Your task to perform on an android device: open wifi settings Image 0: 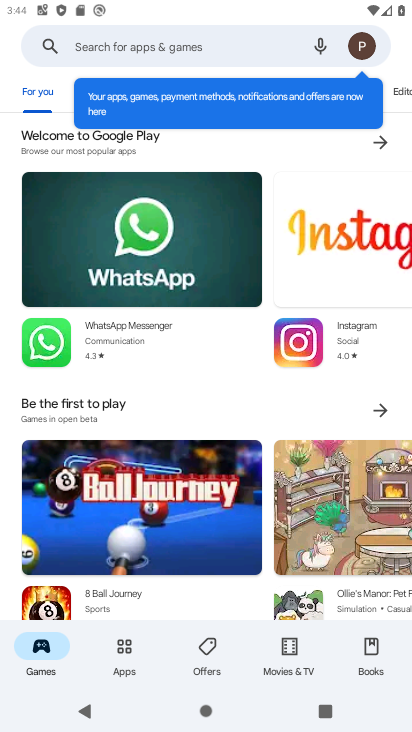
Step 0: press home button
Your task to perform on an android device: open wifi settings Image 1: 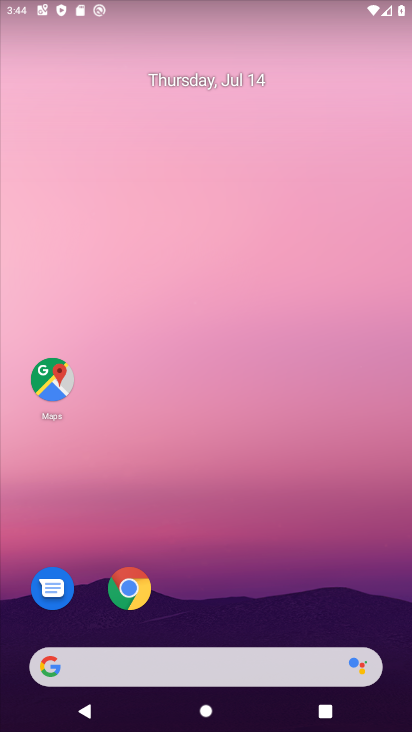
Step 1: drag from (241, 577) to (236, 64)
Your task to perform on an android device: open wifi settings Image 2: 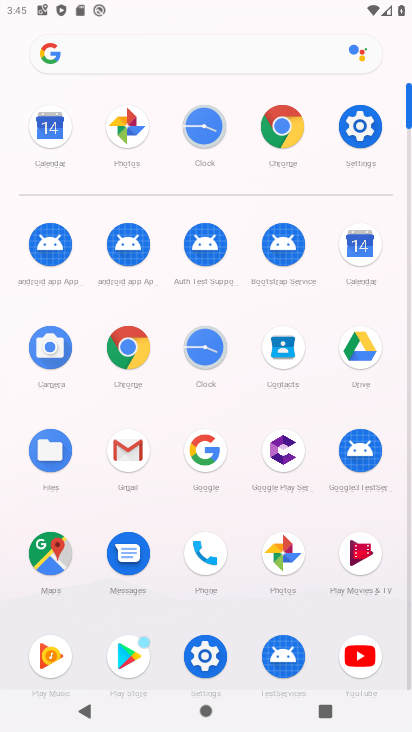
Step 2: click (363, 131)
Your task to perform on an android device: open wifi settings Image 3: 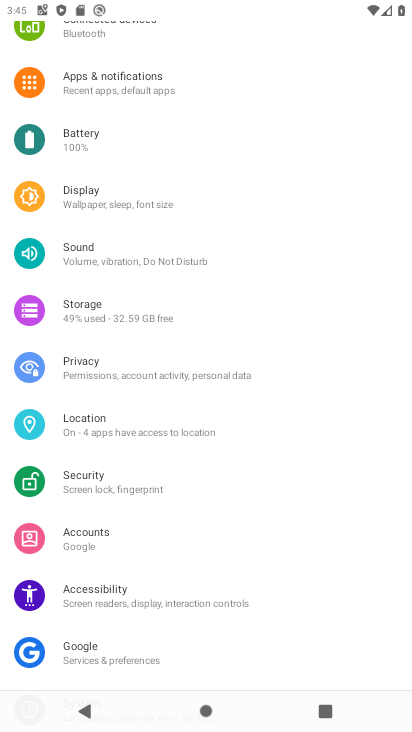
Step 3: drag from (192, 59) to (270, 573)
Your task to perform on an android device: open wifi settings Image 4: 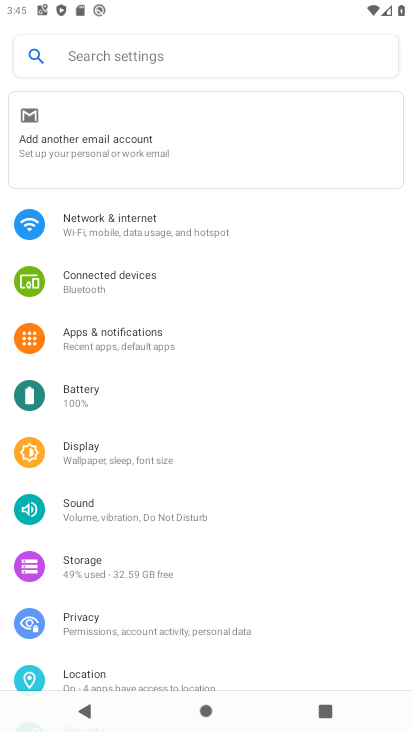
Step 4: click (109, 216)
Your task to perform on an android device: open wifi settings Image 5: 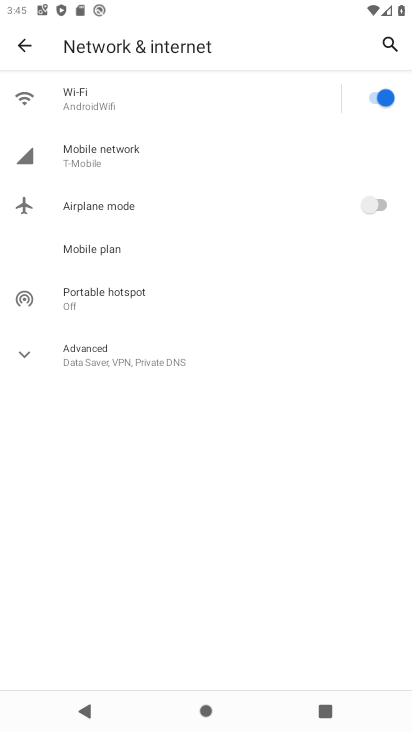
Step 5: click (95, 112)
Your task to perform on an android device: open wifi settings Image 6: 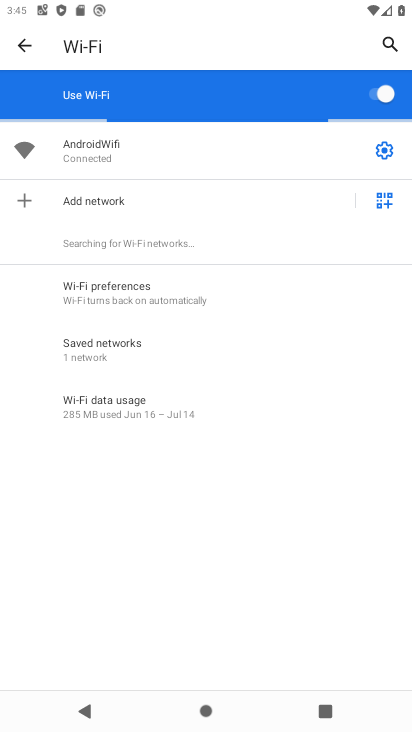
Step 6: task complete